Your task to perform on an android device: turn on airplane mode Image 0: 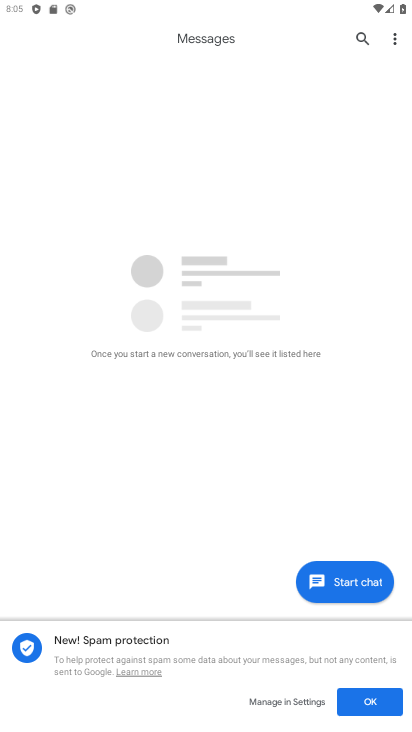
Step 0: press back button
Your task to perform on an android device: turn on airplane mode Image 1: 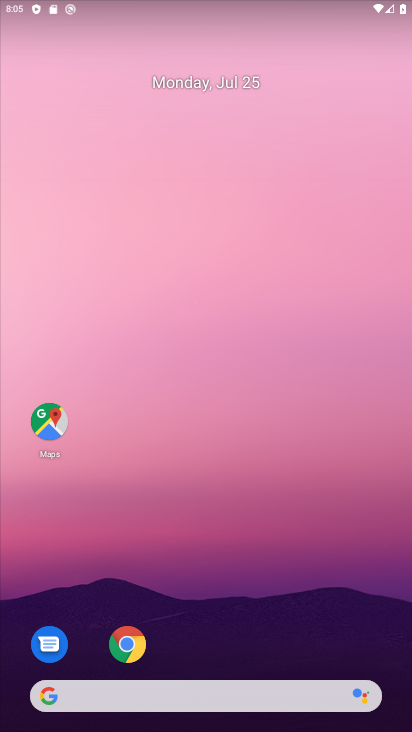
Step 1: click (161, 643)
Your task to perform on an android device: turn on airplane mode Image 2: 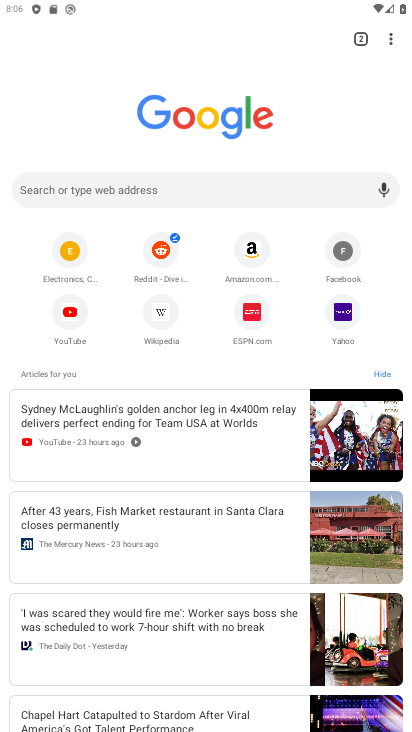
Step 2: press back button
Your task to perform on an android device: turn on airplane mode Image 3: 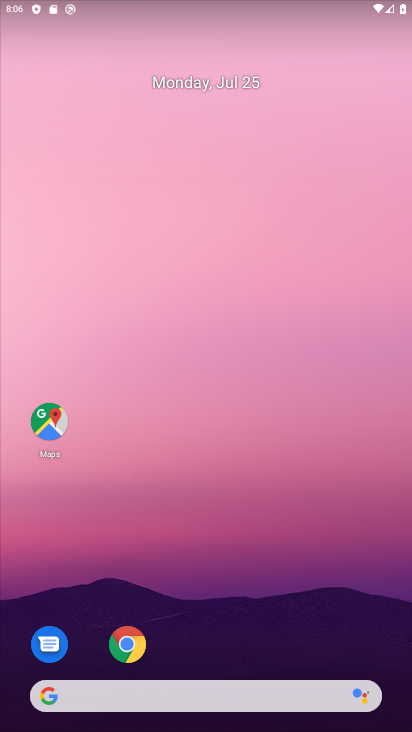
Step 3: click (198, 645)
Your task to perform on an android device: turn on airplane mode Image 4: 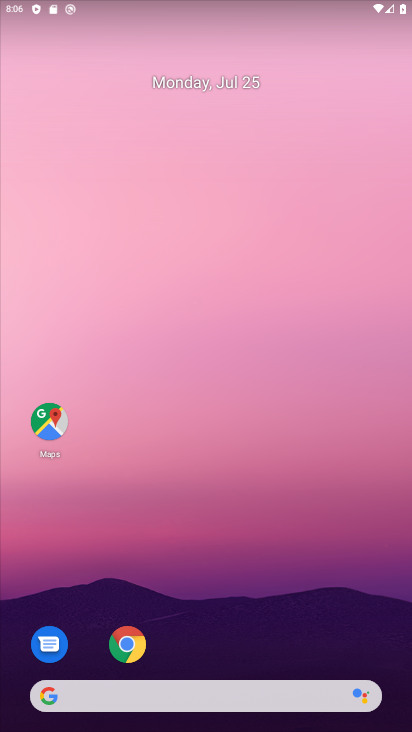
Step 4: drag from (195, 606) to (177, 73)
Your task to perform on an android device: turn on airplane mode Image 5: 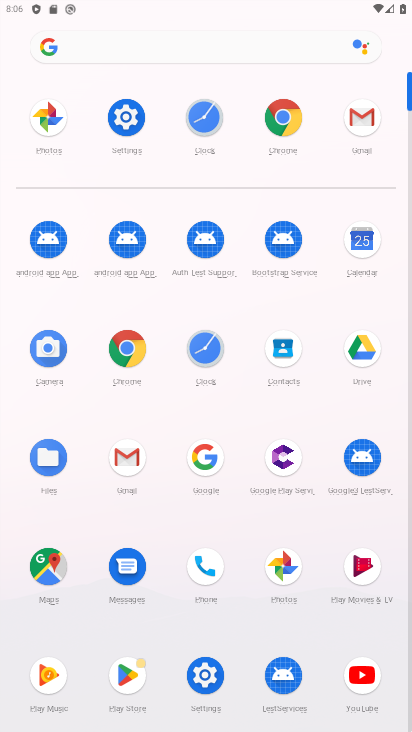
Step 5: click (124, 121)
Your task to perform on an android device: turn on airplane mode Image 6: 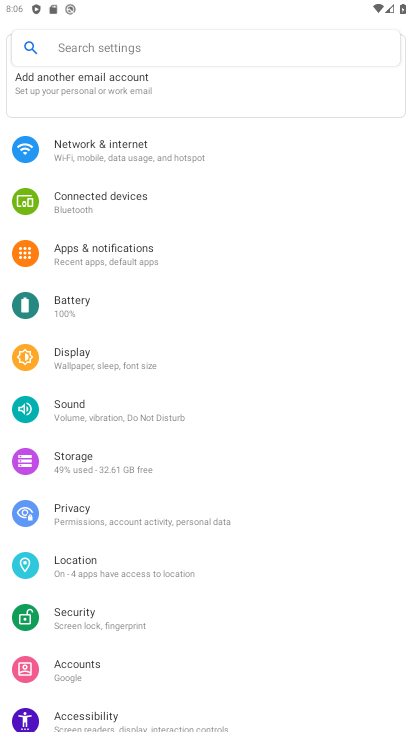
Step 6: click (88, 156)
Your task to perform on an android device: turn on airplane mode Image 7: 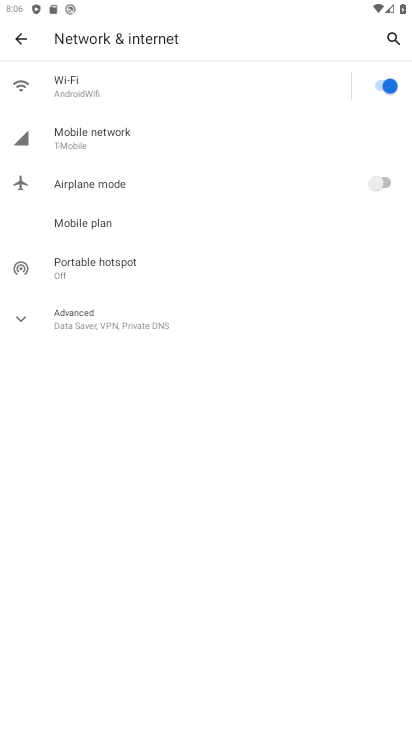
Step 7: click (392, 183)
Your task to perform on an android device: turn on airplane mode Image 8: 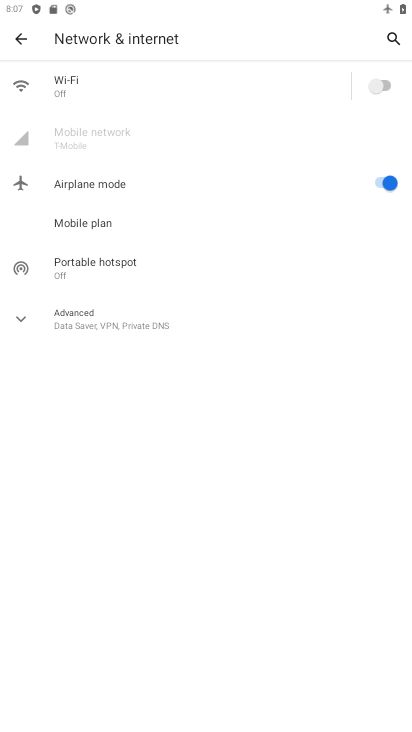
Step 8: task complete